Your task to perform on an android device: see sites visited before in the chrome app Image 0: 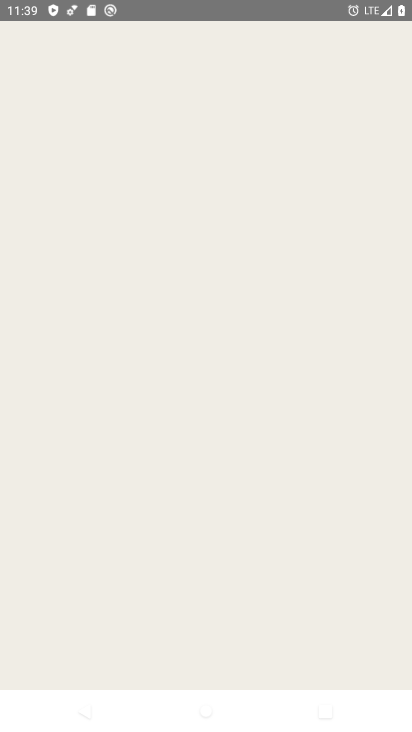
Step 0: press home button
Your task to perform on an android device: see sites visited before in the chrome app Image 1: 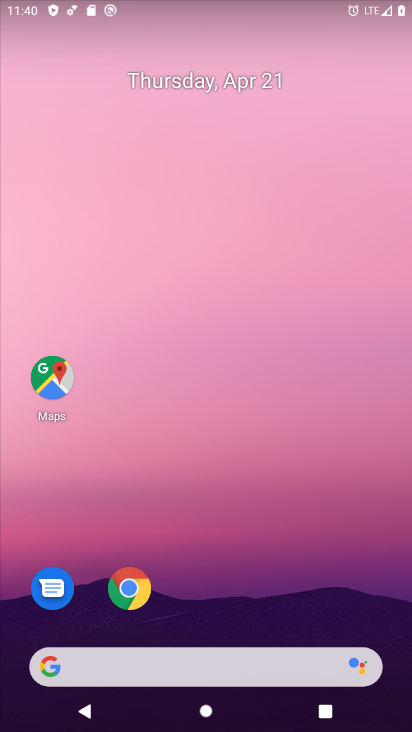
Step 1: drag from (254, 671) to (208, 213)
Your task to perform on an android device: see sites visited before in the chrome app Image 2: 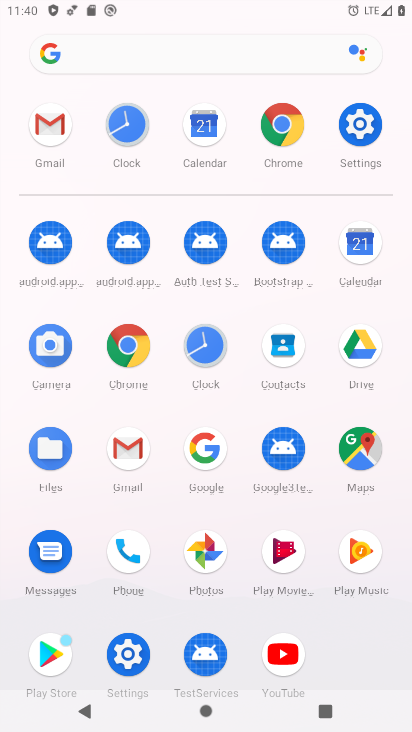
Step 2: click (272, 136)
Your task to perform on an android device: see sites visited before in the chrome app Image 3: 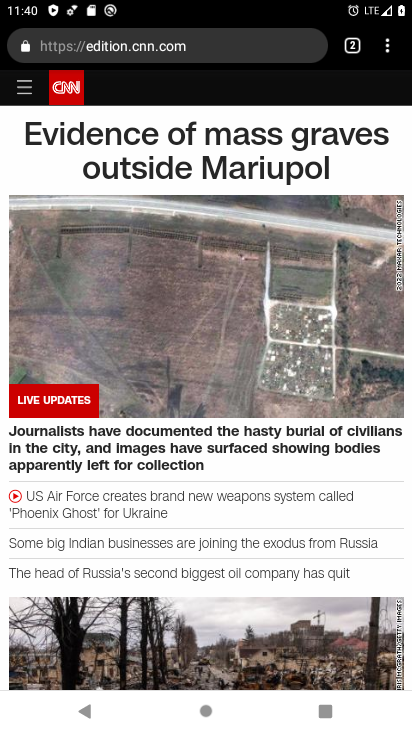
Step 3: click (388, 45)
Your task to perform on an android device: see sites visited before in the chrome app Image 4: 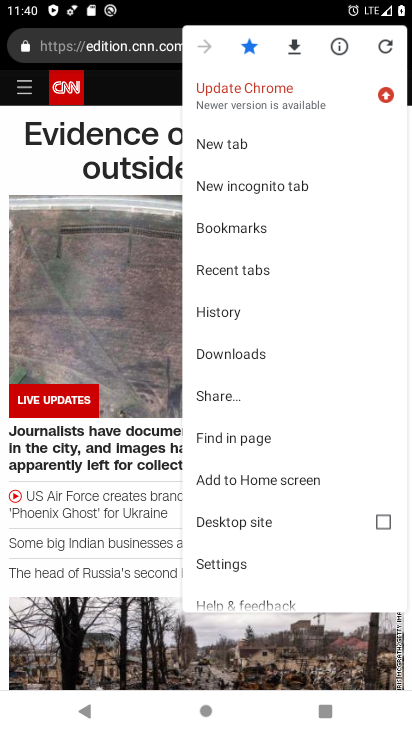
Step 4: click (226, 563)
Your task to perform on an android device: see sites visited before in the chrome app Image 5: 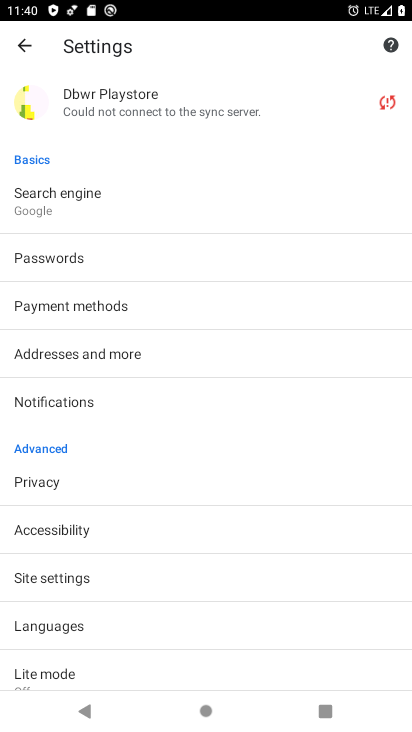
Step 5: click (53, 577)
Your task to perform on an android device: see sites visited before in the chrome app Image 6: 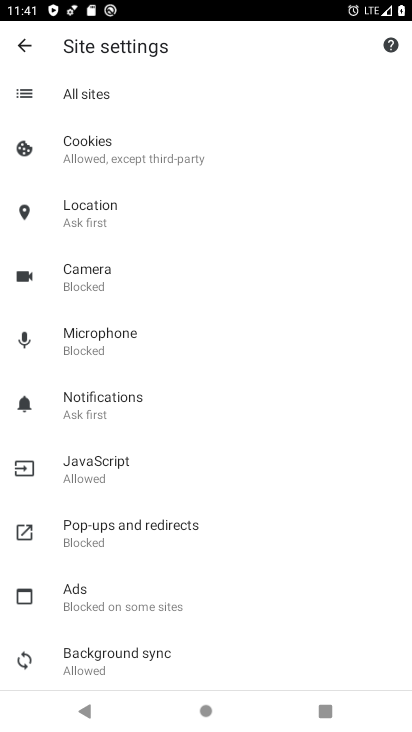
Step 6: task complete